Your task to perform on an android device: Go to Amazon Image 0: 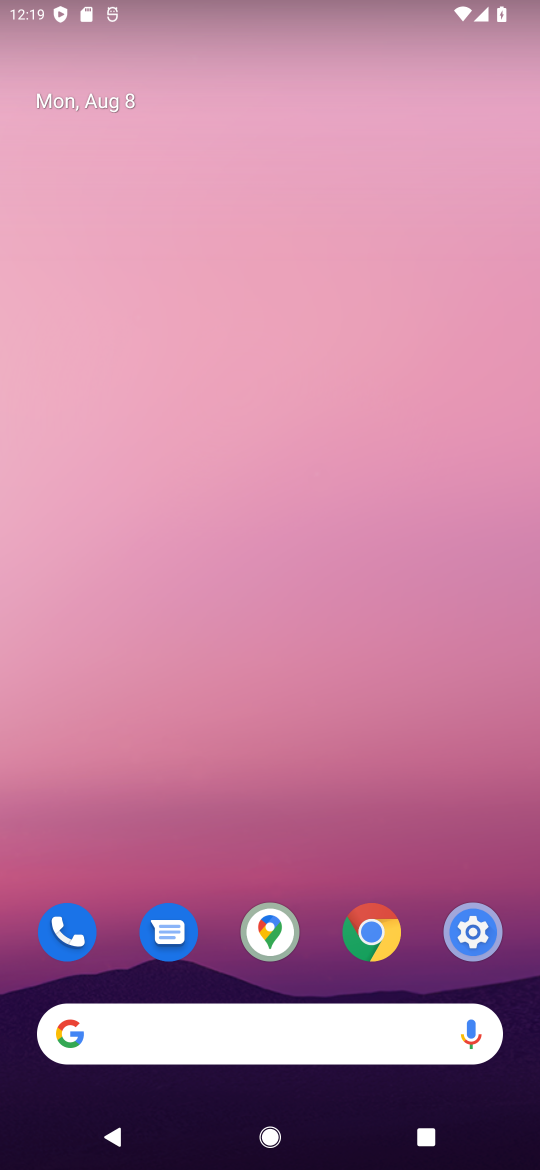
Step 0: click (268, 1027)
Your task to perform on an android device: Go to Amazon Image 1: 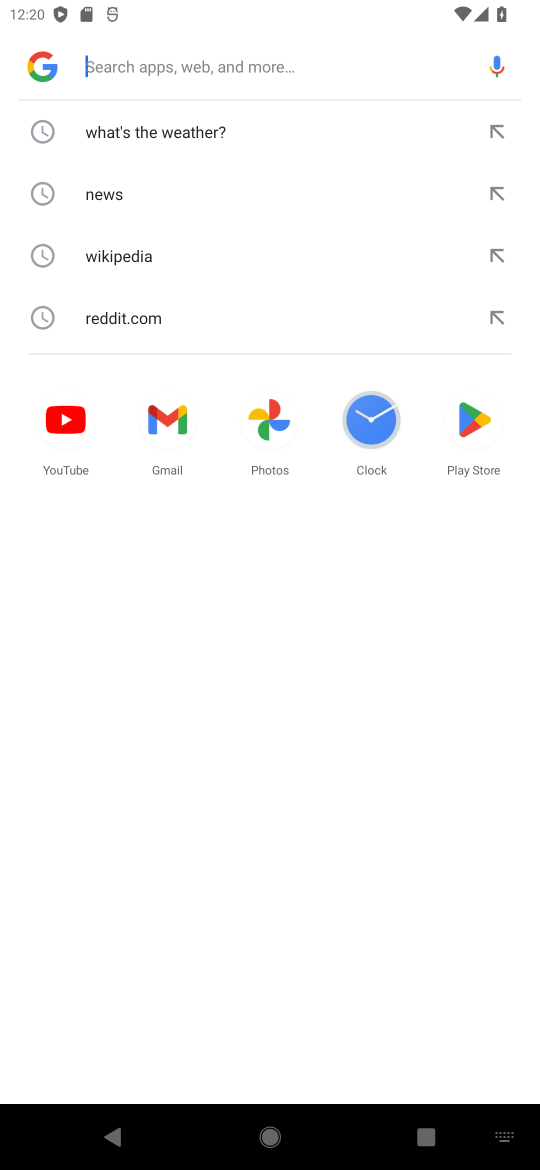
Step 1: type "amazon"
Your task to perform on an android device: Go to Amazon Image 2: 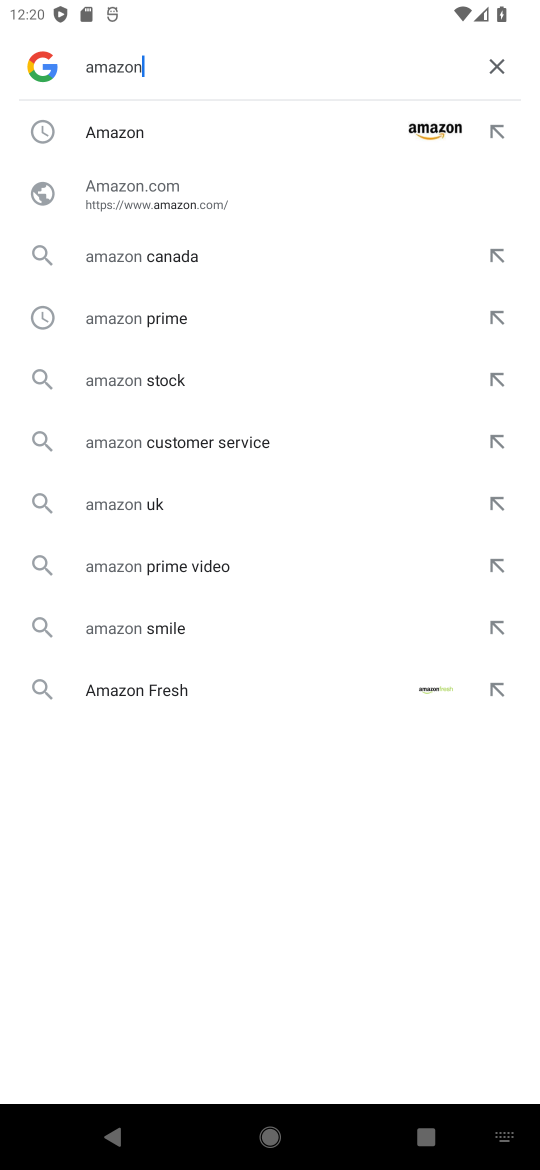
Step 2: click (325, 131)
Your task to perform on an android device: Go to Amazon Image 3: 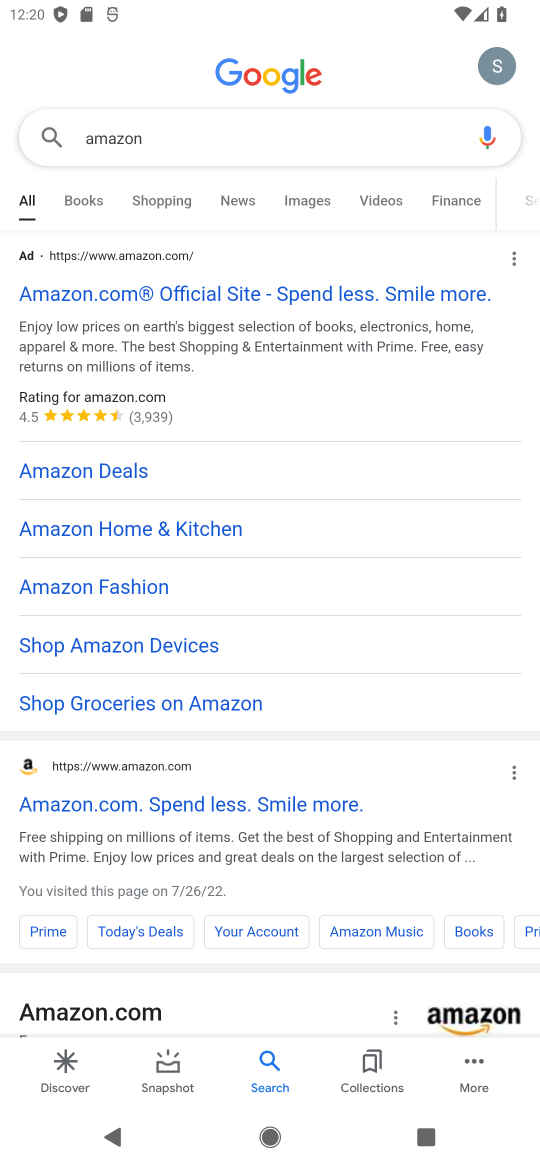
Step 3: click (254, 275)
Your task to perform on an android device: Go to Amazon Image 4: 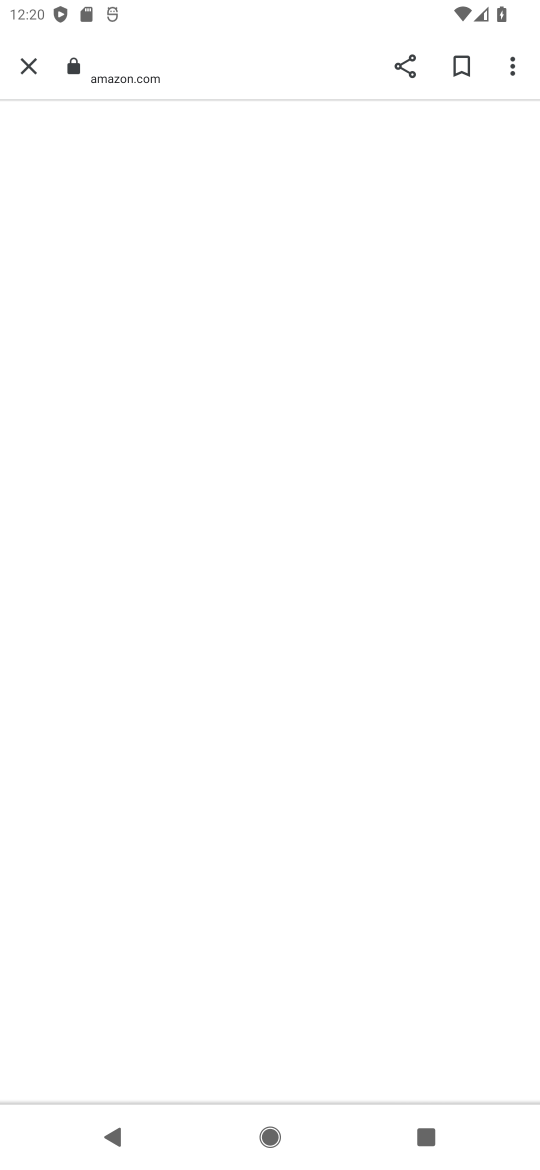
Step 4: click (265, 291)
Your task to perform on an android device: Go to Amazon Image 5: 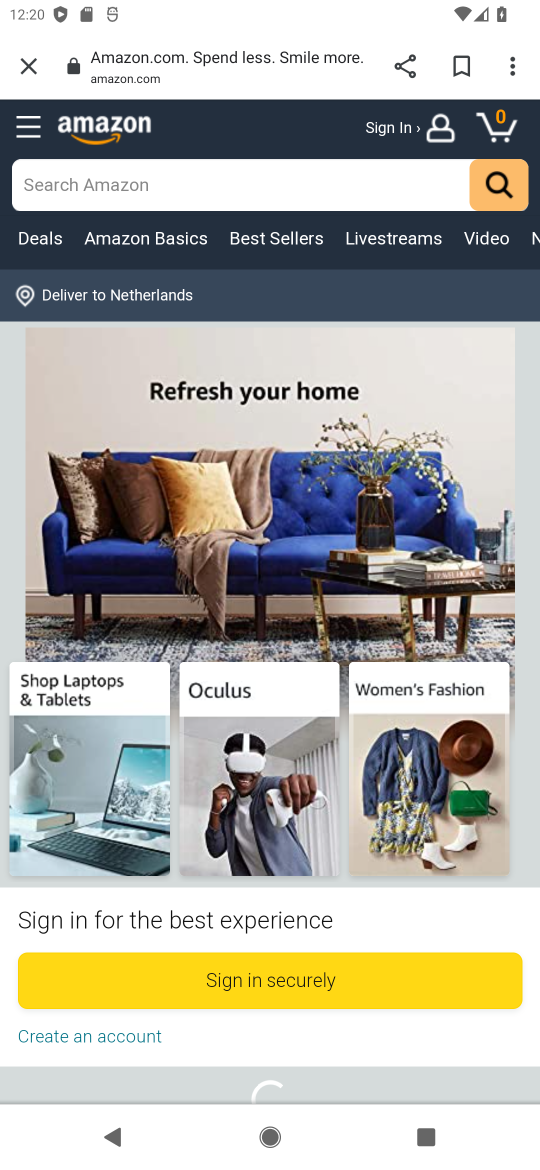
Step 5: task complete